Your task to perform on an android device: Open Android settings Image 0: 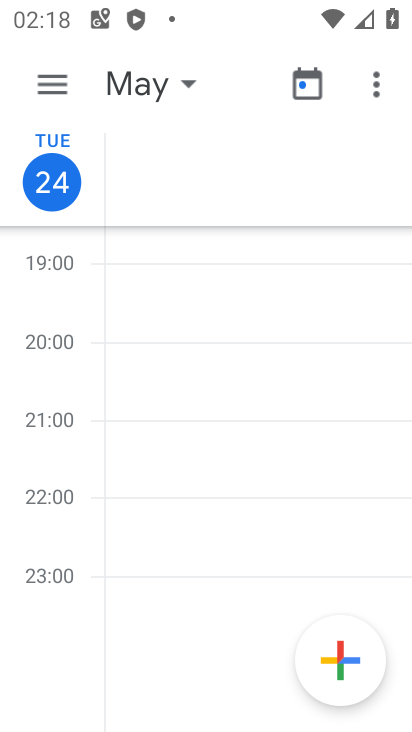
Step 0: click (50, 80)
Your task to perform on an android device: Open Android settings Image 1: 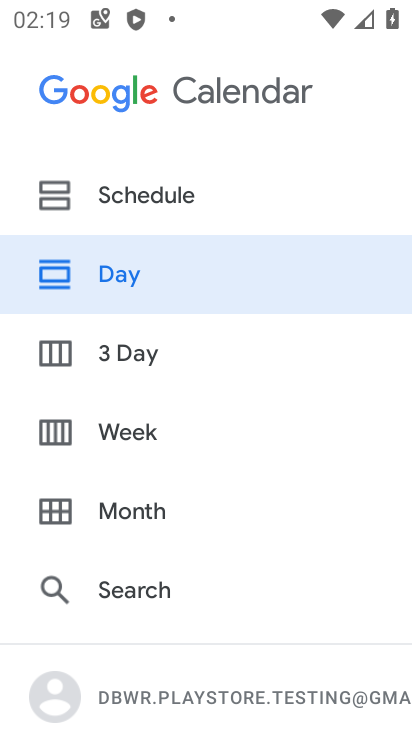
Step 1: press home button
Your task to perform on an android device: Open Android settings Image 2: 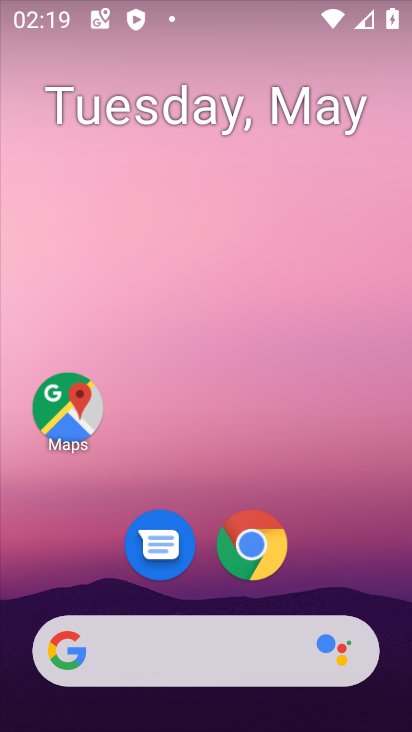
Step 2: drag from (401, 644) to (367, 133)
Your task to perform on an android device: Open Android settings Image 3: 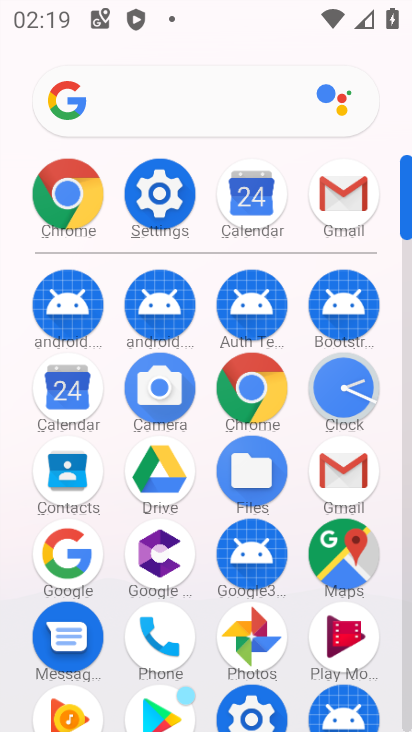
Step 3: click (407, 692)
Your task to perform on an android device: Open Android settings Image 4: 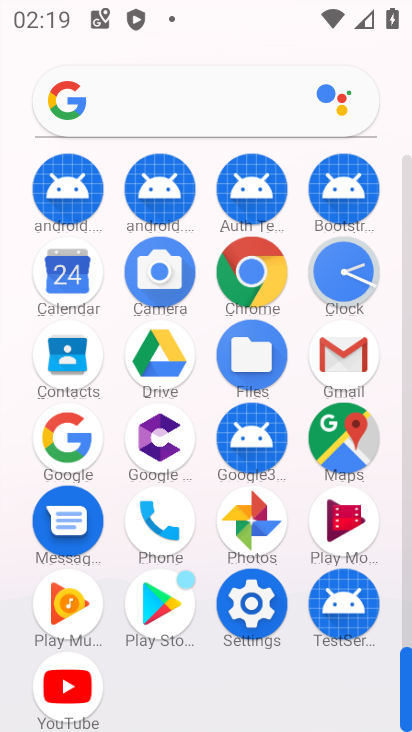
Step 4: click (250, 604)
Your task to perform on an android device: Open Android settings Image 5: 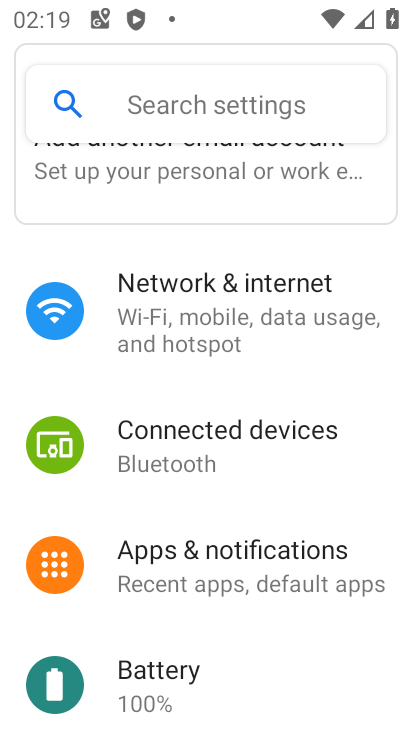
Step 5: drag from (304, 645) to (310, 121)
Your task to perform on an android device: Open Android settings Image 6: 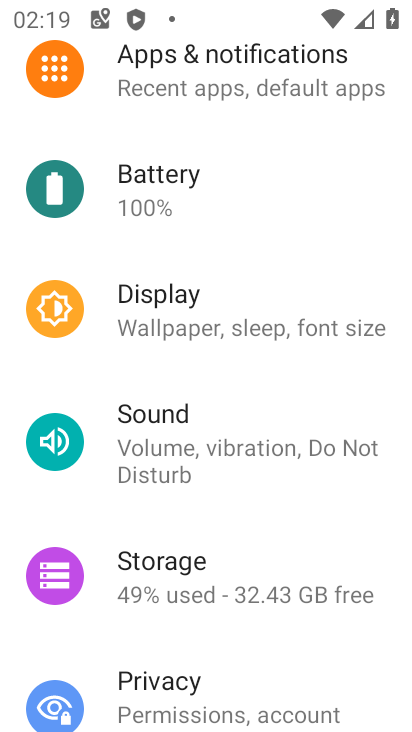
Step 6: drag from (328, 640) to (310, 176)
Your task to perform on an android device: Open Android settings Image 7: 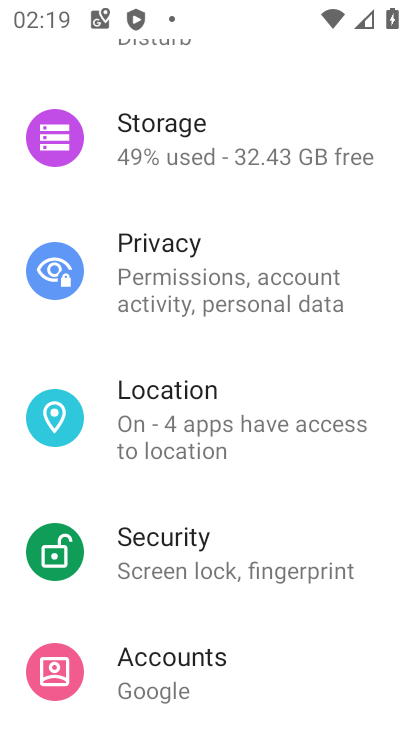
Step 7: drag from (364, 693) to (342, 83)
Your task to perform on an android device: Open Android settings Image 8: 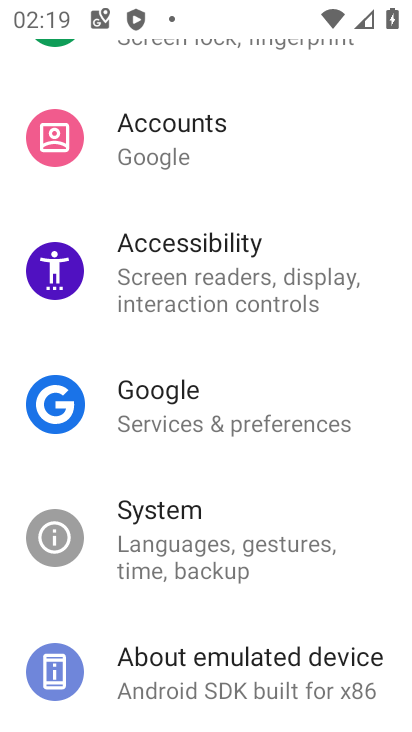
Step 8: click (324, 690)
Your task to perform on an android device: Open Android settings Image 9: 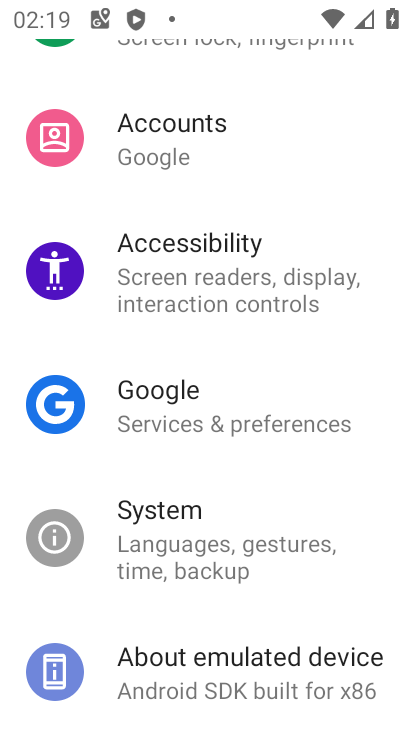
Step 9: task complete